Your task to perform on an android device: Open Maps and search for coffee Image 0: 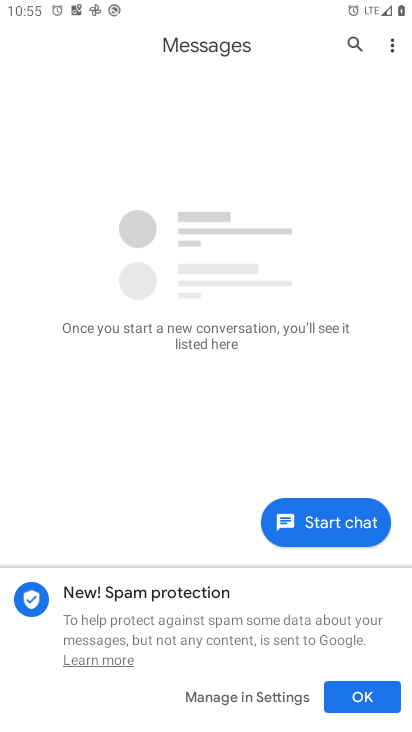
Step 0: press home button
Your task to perform on an android device: Open Maps and search for coffee Image 1: 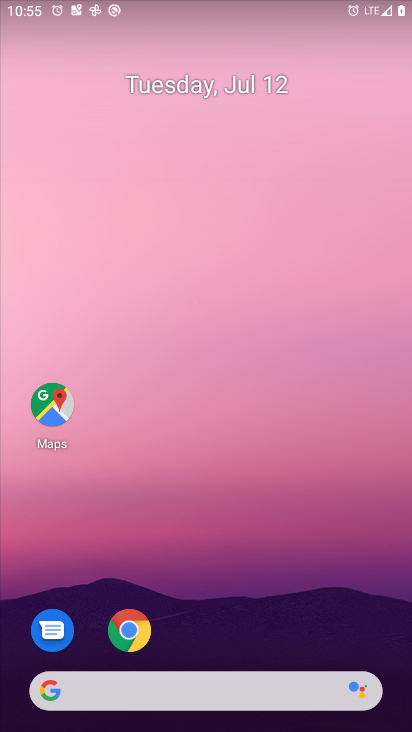
Step 1: click (66, 402)
Your task to perform on an android device: Open Maps and search for coffee Image 2: 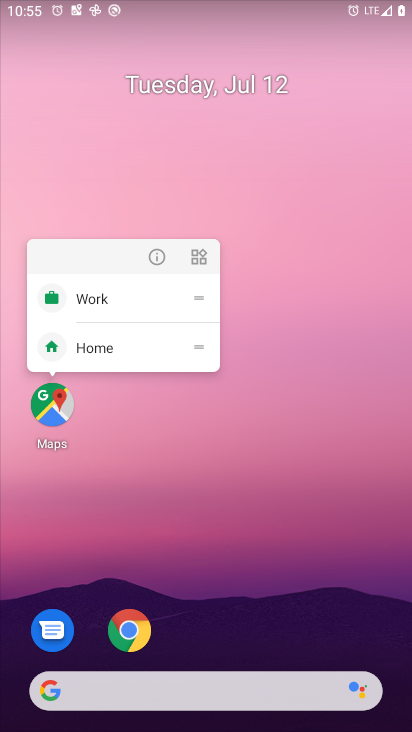
Step 2: click (35, 390)
Your task to perform on an android device: Open Maps and search for coffee Image 3: 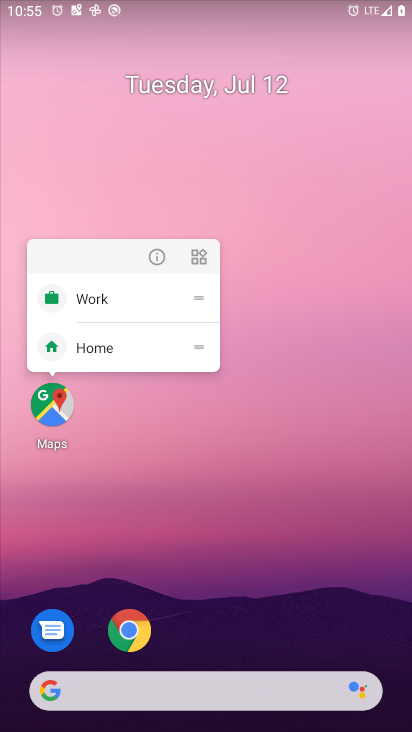
Step 3: click (44, 399)
Your task to perform on an android device: Open Maps and search for coffee Image 4: 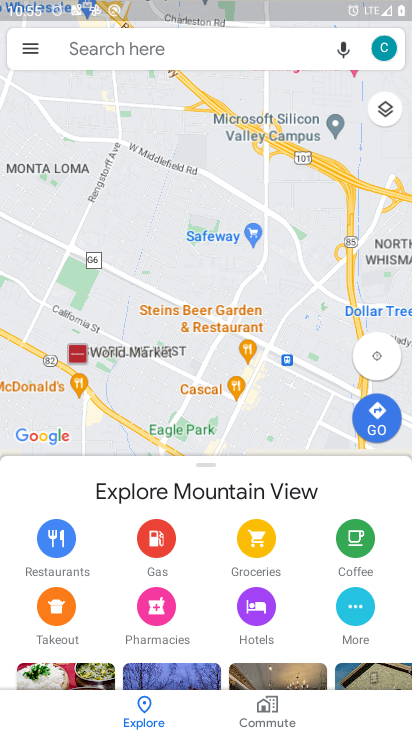
Step 4: click (141, 46)
Your task to perform on an android device: Open Maps and search for coffee Image 5: 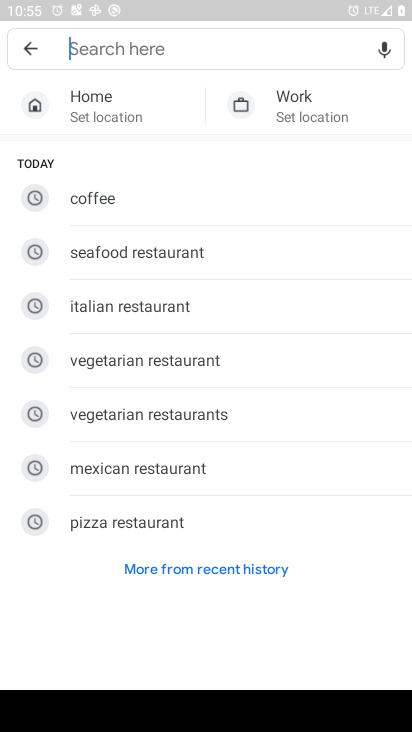
Step 5: type " coffee"
Your task to perform on an android device: Open Maps and search for coffee Image 6: 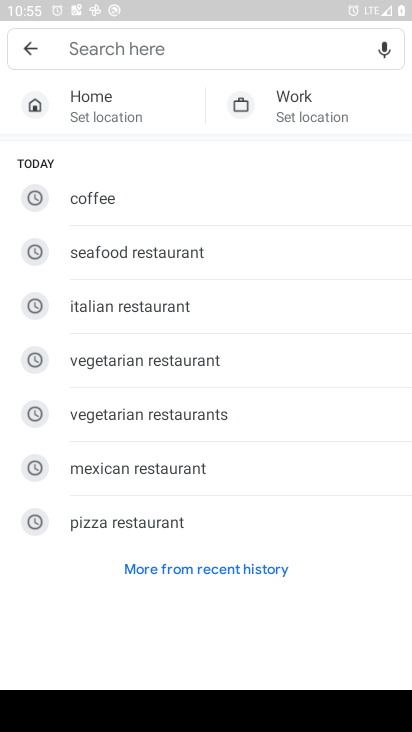
Step 6: click (114, 42)
Your task to perform on an android device: Open Maps and search for coffee Image 7: 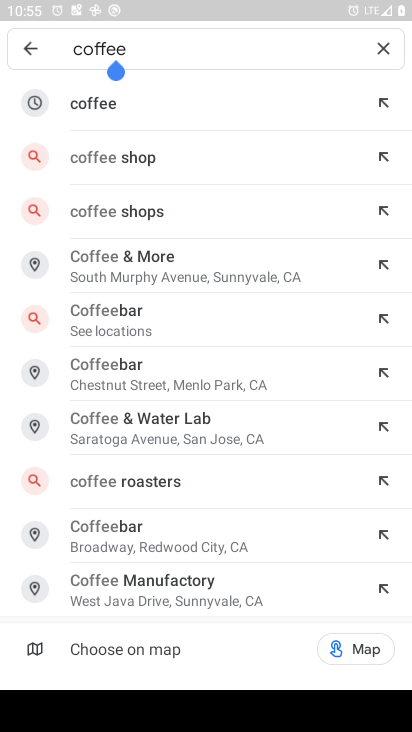
Step 7: press enter
Your task to perform on an android device: Open Maps and search for coffee Image 8: 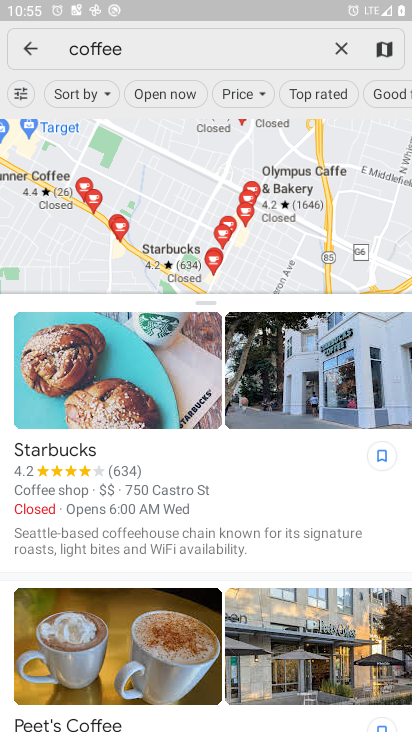
Step 8: task complete